Your task to perform on an android device: What is the recent news? Image 0: 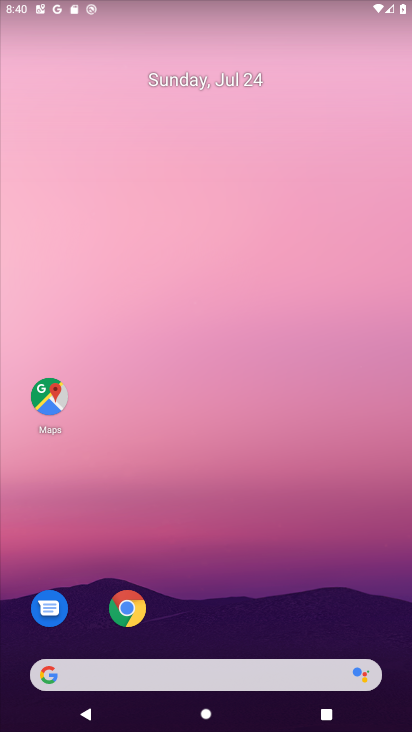
Step 0: click (155, 677)
Your task to perform on an android device: What is the recent news? Image 1: 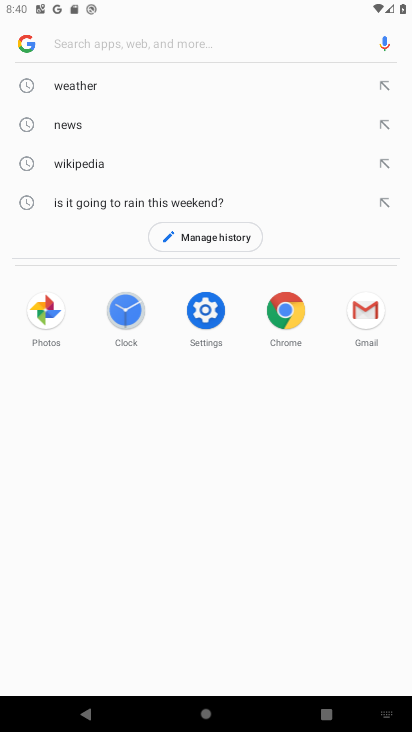
Step 1: click (34, 47)
Your task to perform on an android device: What is the recent news? Image 2: 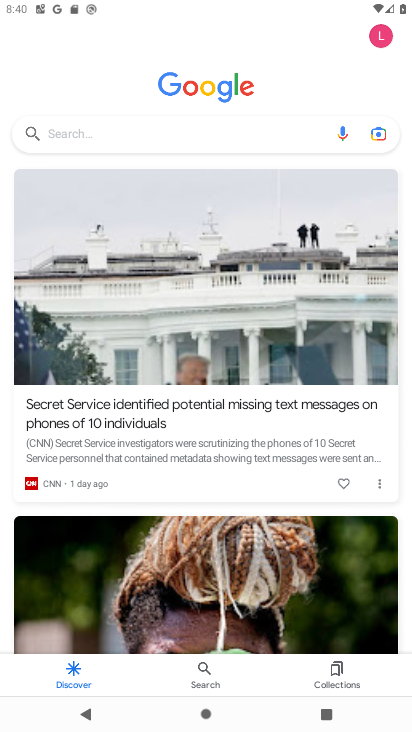
Step 2: task complete